Your task to perform on an android device: Show me the alarms in the clock app Image 0: 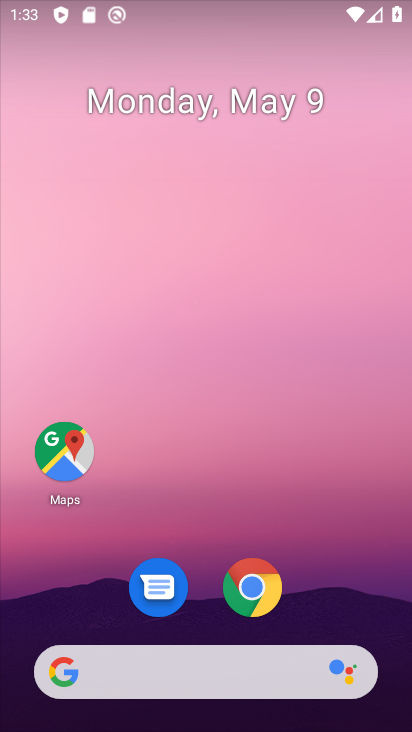
Step 0: drag from (199, 546) to (259, 67)
Your task to perform on an android device: Show me the alarms in the clock app Image 1: 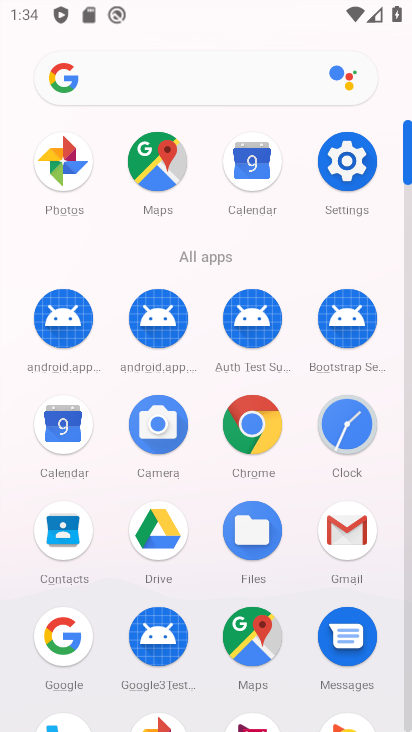
Step 1: click (335, 439)
Your task to perform on an android device: Show me the alarms in the clock app Image 2: 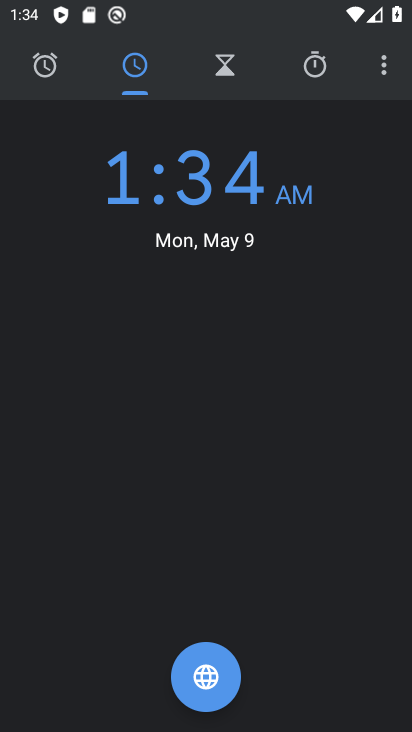
Step 2: click (51, 82)
Your task to perform on an android device: Show me the alarms in the clock app Image 3: 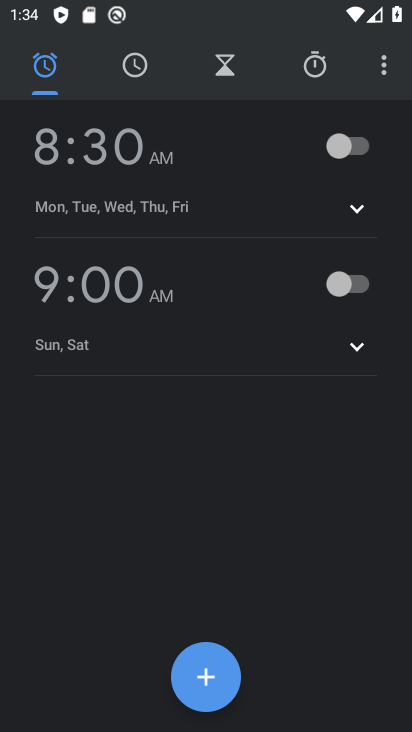
Step 3: task complete